Your task to perform on an android device: When is my next appointment? Image 0: 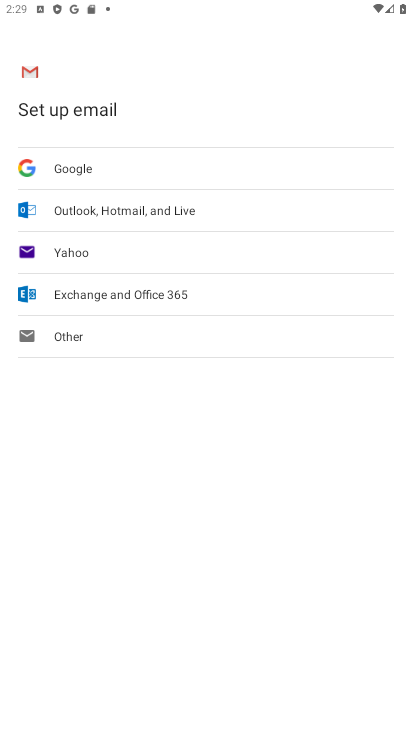
Step 0: press home button
Your task to perform on an android device: When is my next appointment? Image 1: 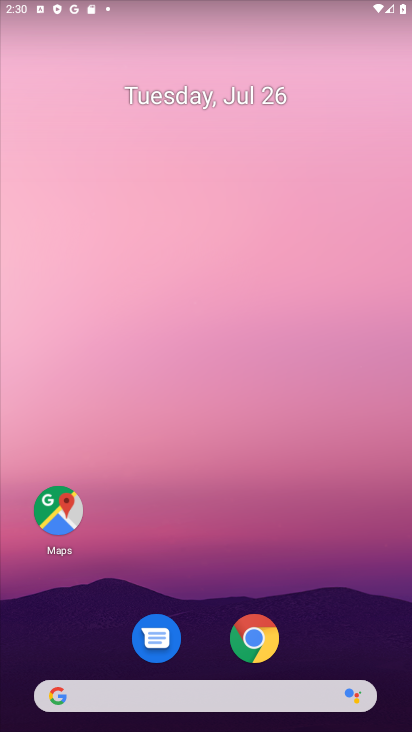
Step 1: drag from (252, 686) to (222, 46)
Your task to perform on an android device: When is my next appointment? Image 2: 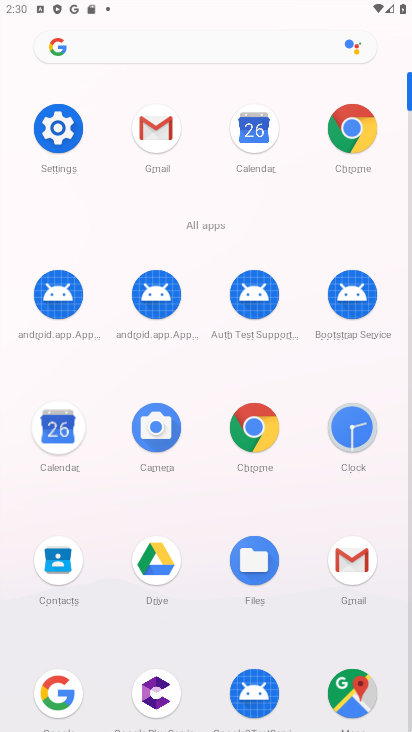
Step 2: click (61, 432)
Your task to perform on an android device: When is my next appointment? Image 3: 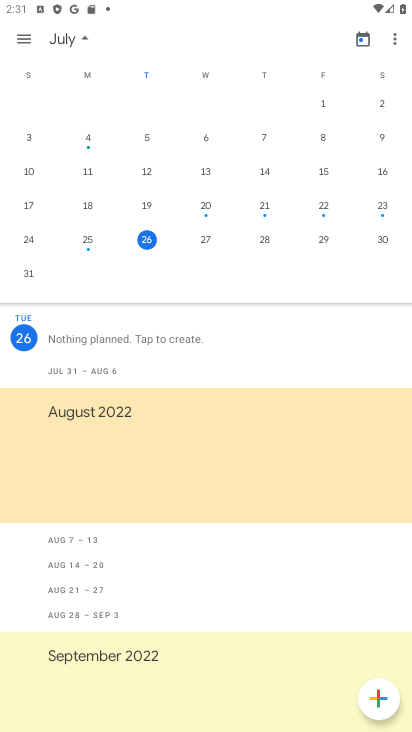
Step 3: click (29, 39)
Your task to perform on an android device: When is my next appointment? Image 4: 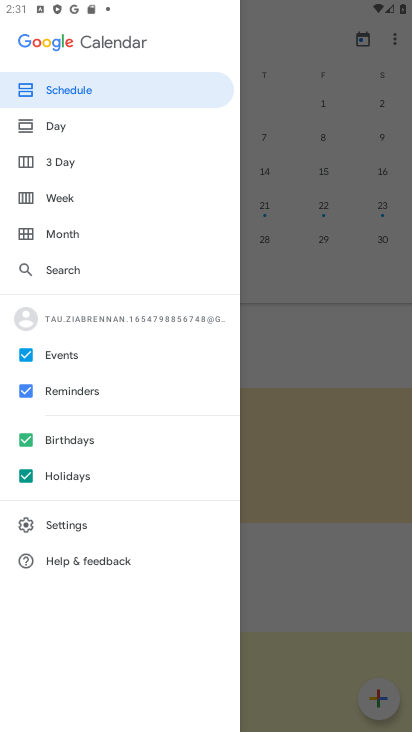
Step 4: click (126, 98)
Your task to perform on an android device: When is my next appointment? Image 5: 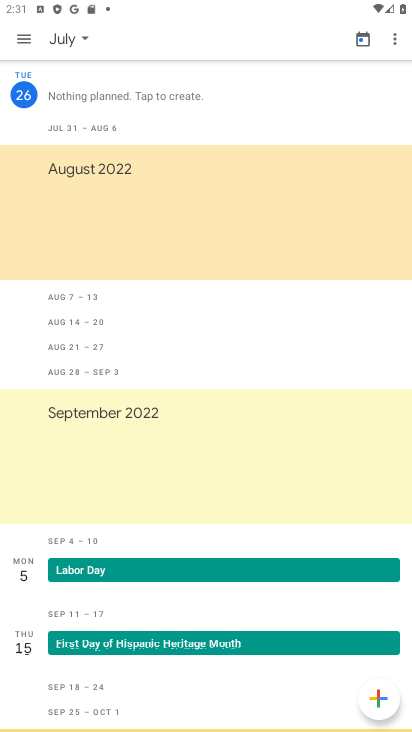
Step 5: task complete